Your task to perform on an android device: change text size in settings app Image 0: 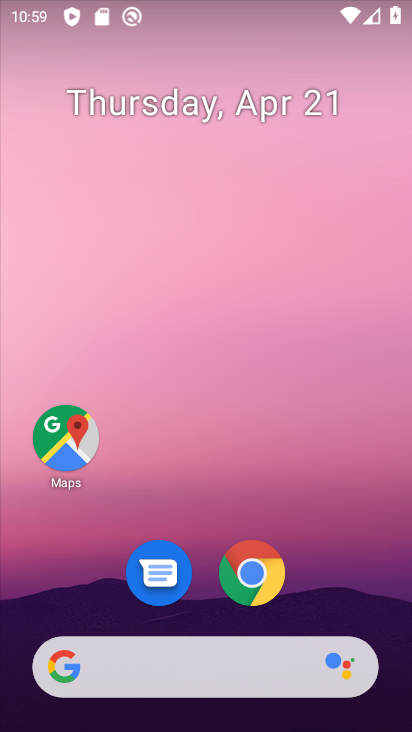
Step 0: drag from (346, 579) to (370, 35)
Your task to perform on an android device: change text size in settings app Image 1: 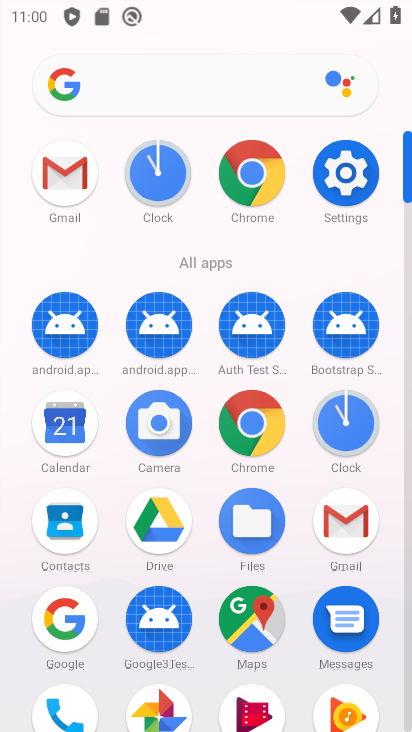
Step 1: click (343, 162)
Your task to perform on an android device: change text size in settings app Image 2: 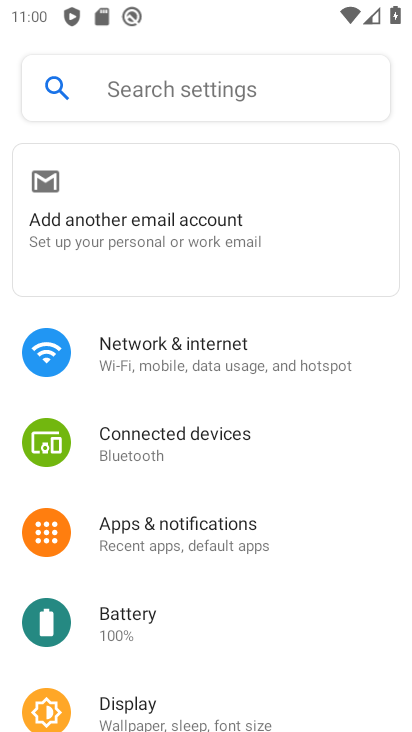
Step 2: drag from (265, 617) to (281, 89)
Your task to perform on an android device: change text size in settings app Image 3: 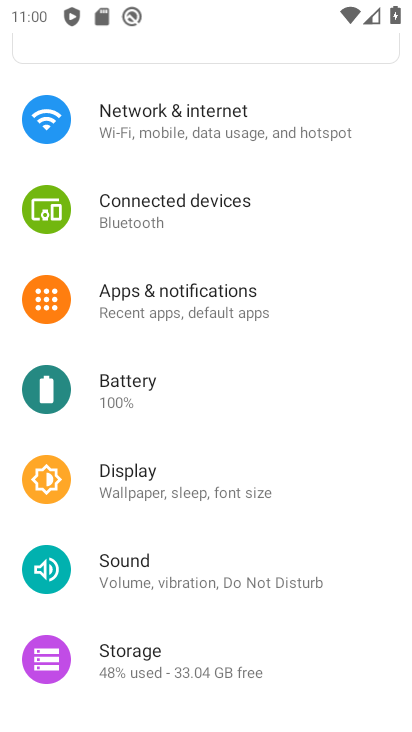
Step 3: drag from (219, 664) to (211, 79)
Your task to perform on an android device: change text size in settings app Image 4: 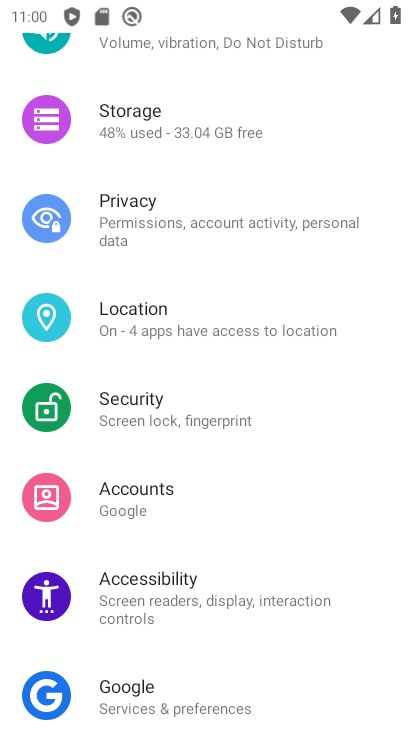
Step 4: drag from (176, 163) to (159, 604)
Your task to perform on an android device: change text size in settings app Image 5: 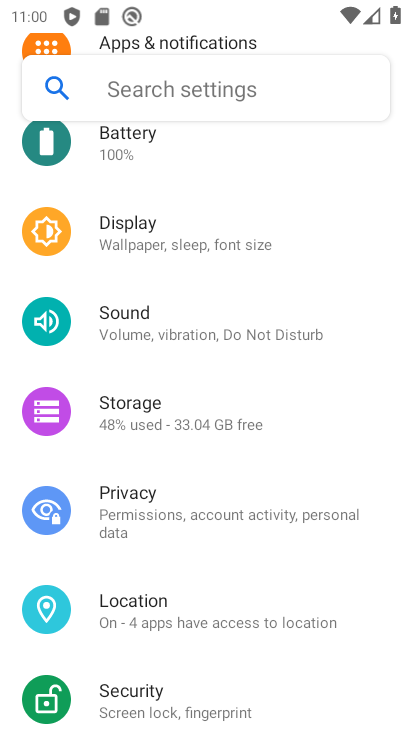
Step 5: click (214, 246)
Your task to perform on an android device: change text size in settings app Image 6: 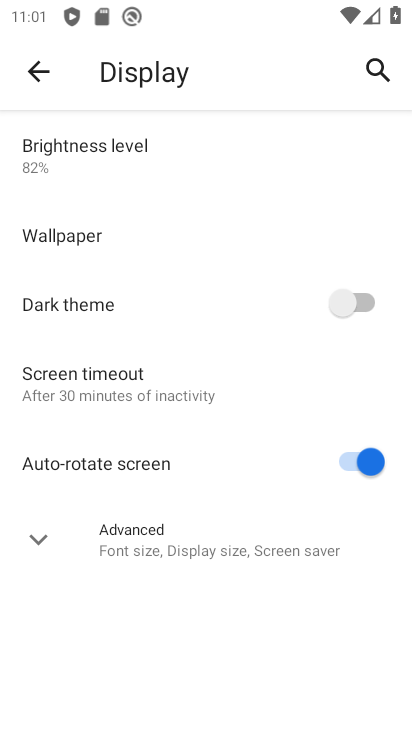
Step 6: click (191, 543)
Your task to perform on an android device: change text size in settings app Image 7: 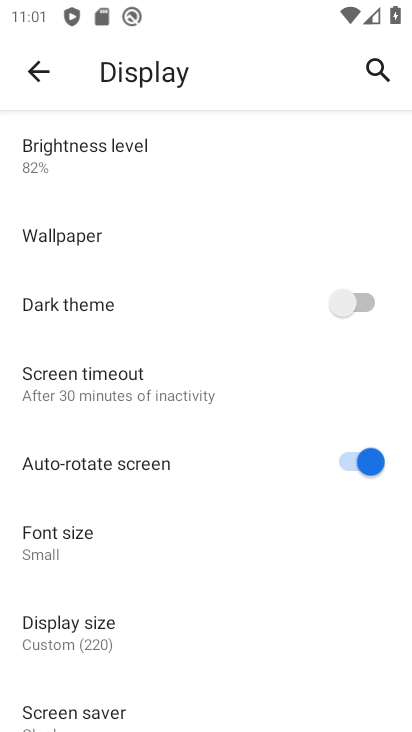
Step 7: click (93, 530)
Your task to perform on an android device: change text size in settings app Image 8: 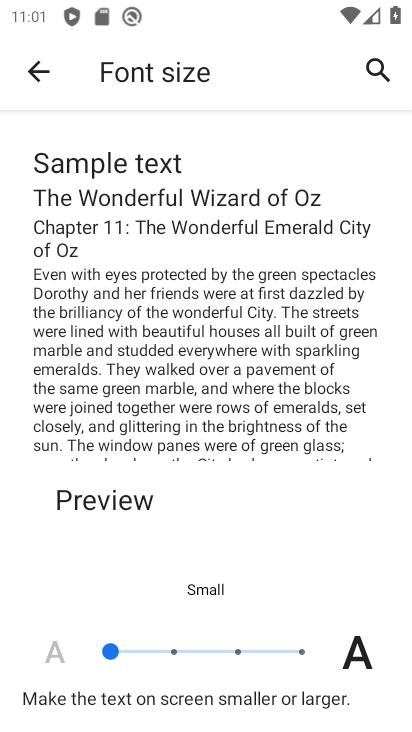
Step 8: click (169, 654)
Your task to perform on an android device: change text size in settings app Image 9: 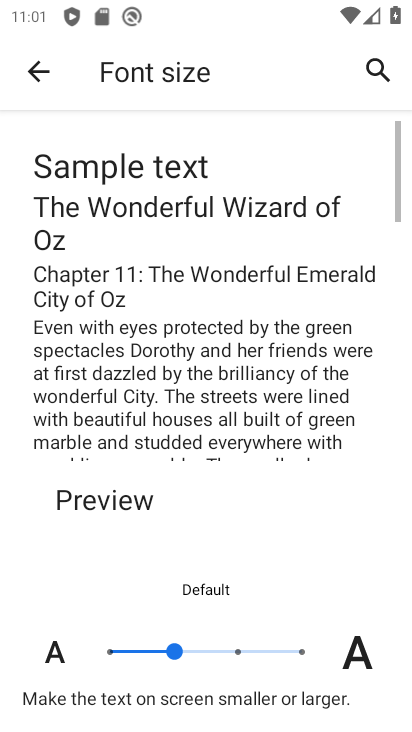
Step 9: click (172, 653)
Your task to perform on an android device: change text size in settings app Image 10: 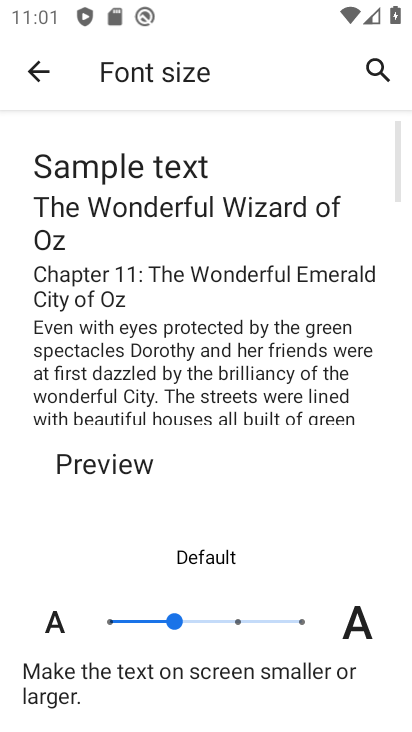
Step 10: task complete